Your task to perform on an android device: What is the news today? Image 0: 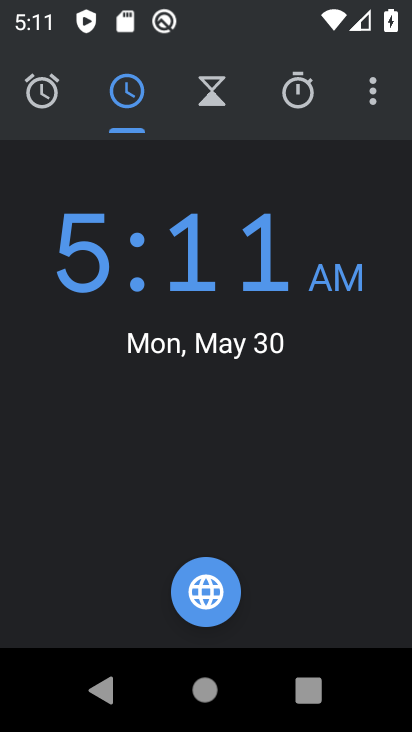
Step 0: press home button
Your task to perform on an android device: What is the news today? Image 1: 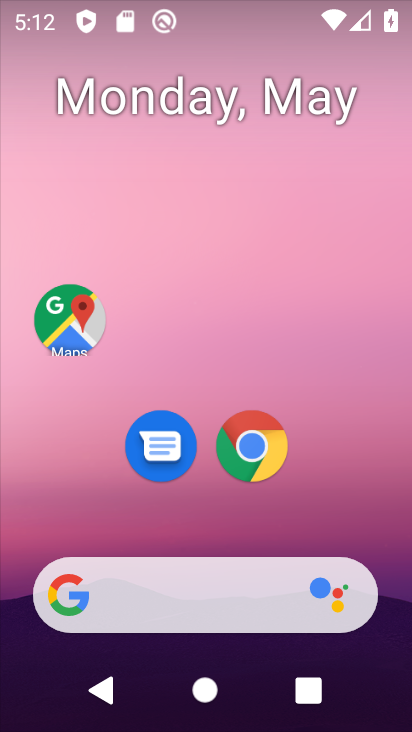
Step 1: click (204, 605)
Your task to perform on an android device: What is the news today? Image 2: 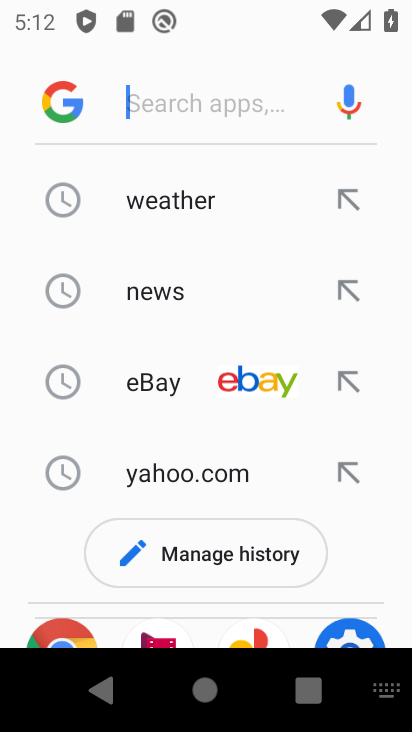
Step 2: click (154, 281)
Your task to perform on an android device: What is the news today? Image 3: 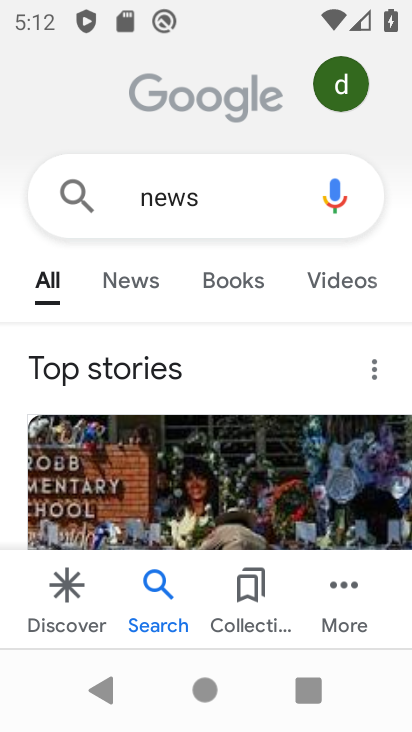
Step 3: task complete